Your task to perform on an android device: Open Google Chrome and click the shortcut for Amazon.com Image 0: 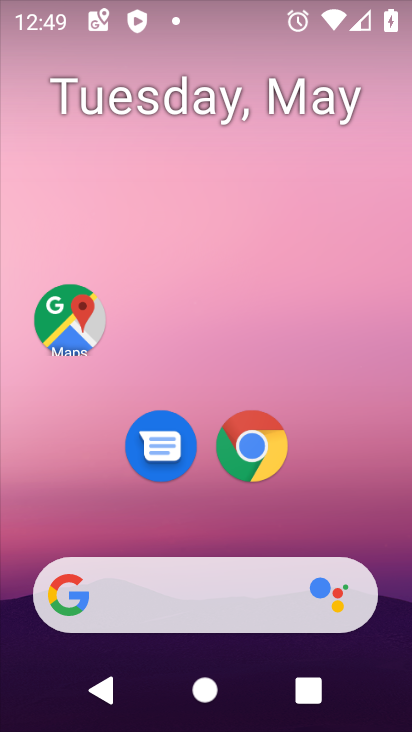
Step 0: click (250, 423)
Your task to perform on an android device: Open Google Chrome and click the shortcut for Amazon.com Image 1: 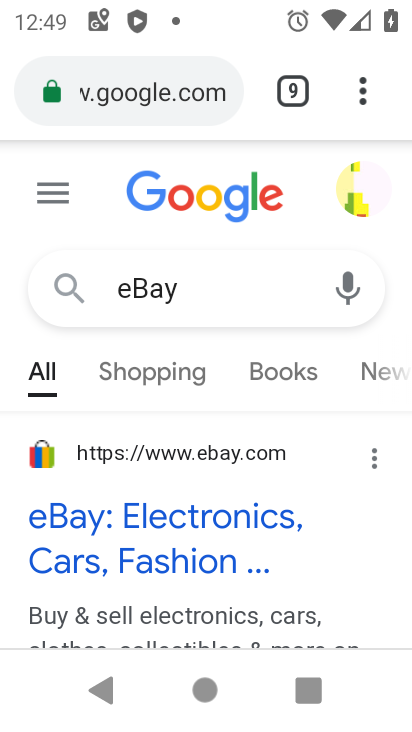
Step 1: click (356, 80)
Your task to perform on an android device: Open Google Chrome and click the shortcut for Amazon.com Image 2: 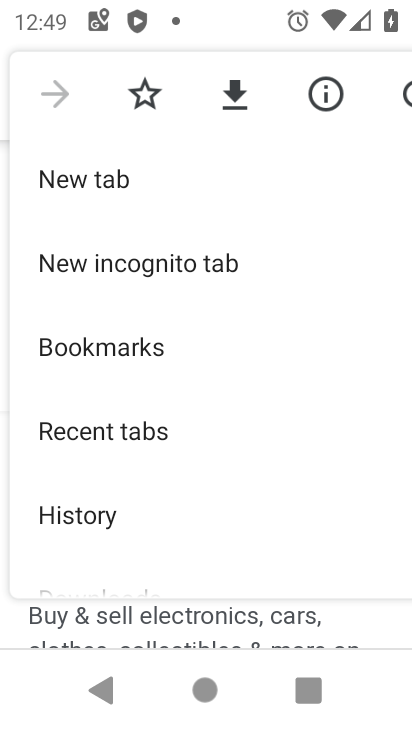
Step 2: drag from (216, 523) to (250, 266)
Your task to perform on an android device: Open Google Chrome and click the shortcut for Amazon.com Image 3: 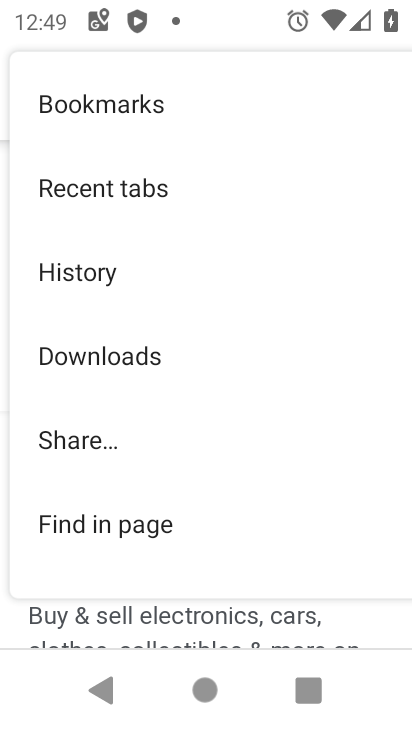
Step 3: drag from (228, 193) to (176, 553)
Your task to perform on an android device: Open Google Chrome and click the shortcut for Amazon.com Image 4: 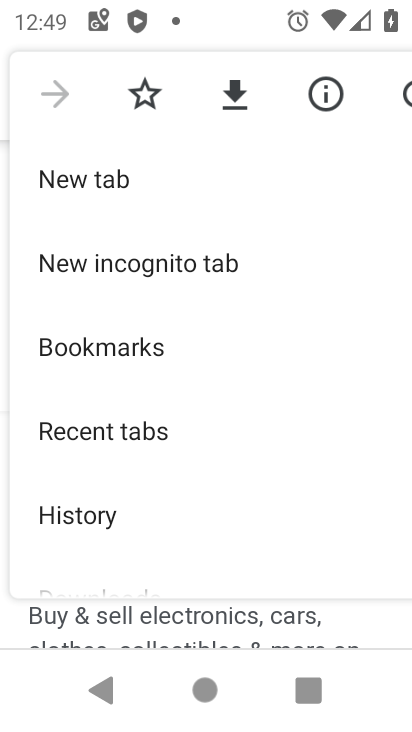
Step 4: click (138, 183)
Your task to perform on an android device: Open Google Chrome and click the shortcut for Amazon.com Image 5: 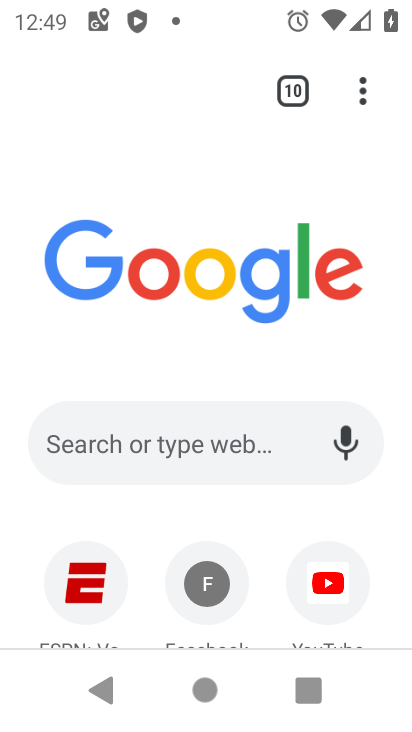
Step 5: drag from (233, 570) to (241, 318)
Your task to perform on an android device: Open Google Chrome and click the shortcut for Amazon.com Image 6: 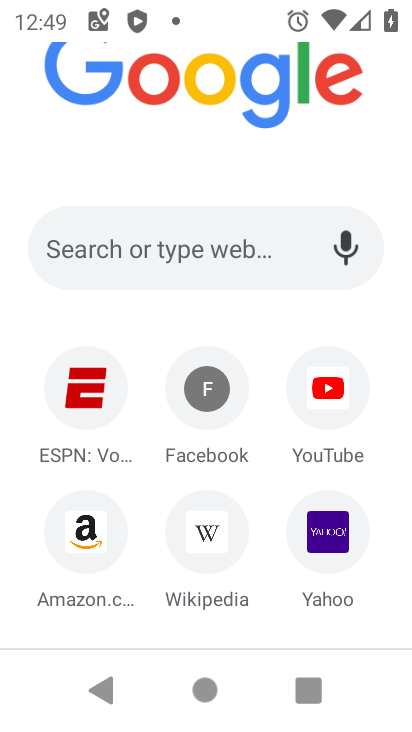
Step 6: click (83, 529)
Your task to perform on an android device: Open Google Chrome and click the shortcut for Amazon.com Image 7: 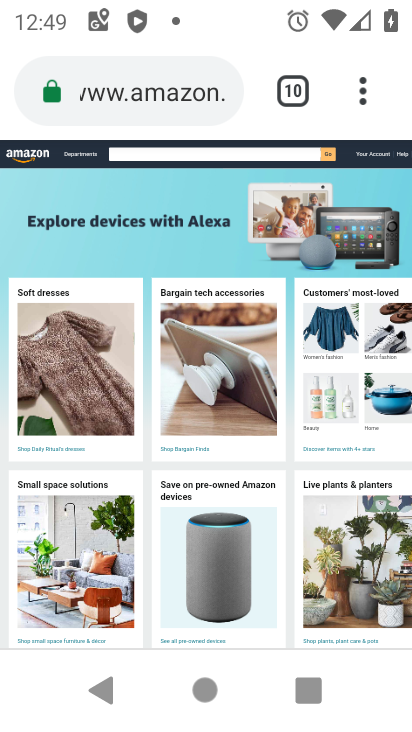
Step 7: task complete